Your task to perform on an android device: turn notification dots on Image 0: 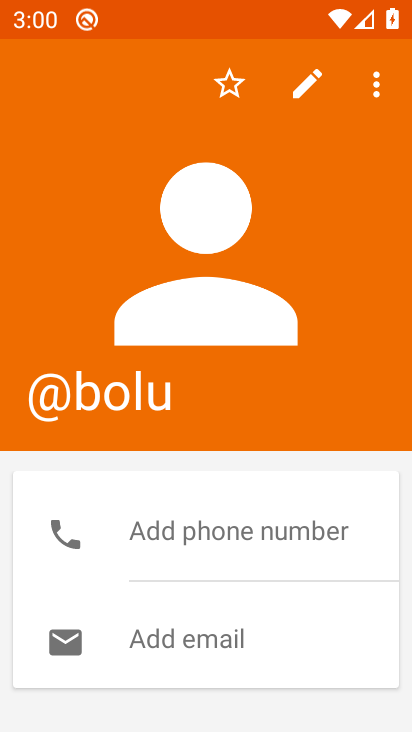
Step 0: press home button
Your task to perform on an android device: turn notification dots on Image 1: 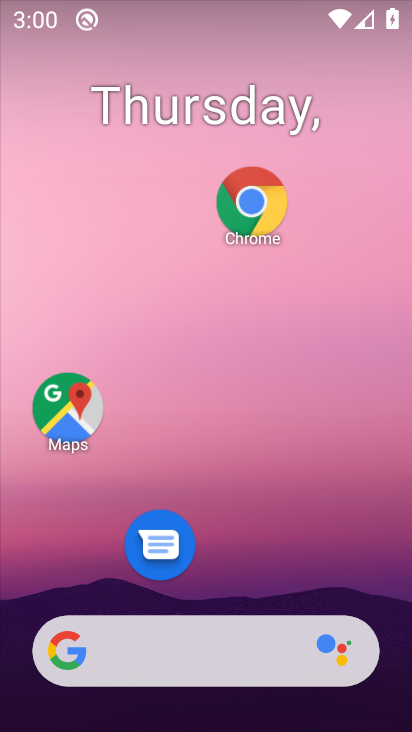
Step 1: click (176, 159)
Your task to perform on an android device: turn notification dots on Image 2: 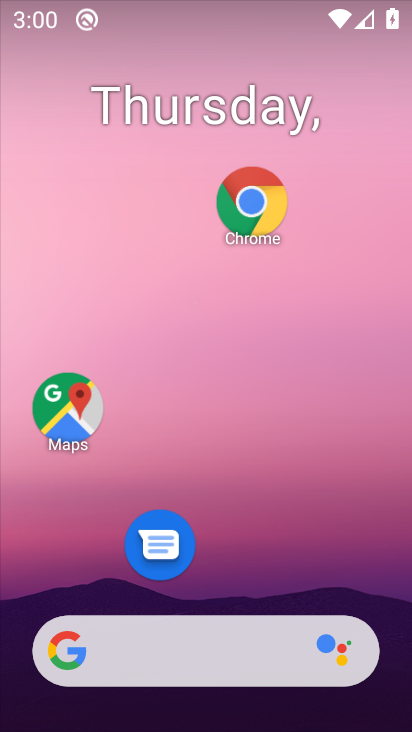
Step 2: drag from (200, 601) to (209, 140)
Your task to perform on an android device: turn notification dots on Image 3: 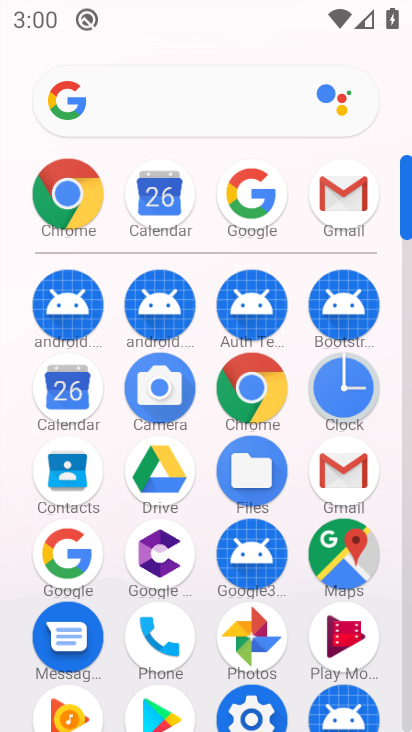
Step 3: drag from (131, 496) to (150, 140)
Your task to perform on an android device: turn notification dots on Image 4: 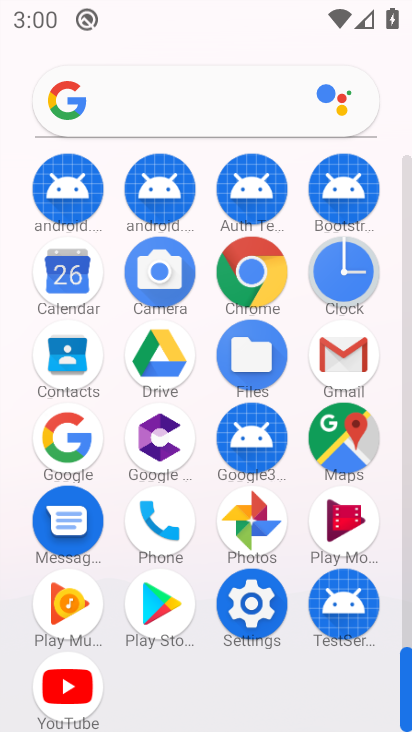
Step 4: click (248, 607)
Your task to perform on an android device: turn notification dots on Image 5: 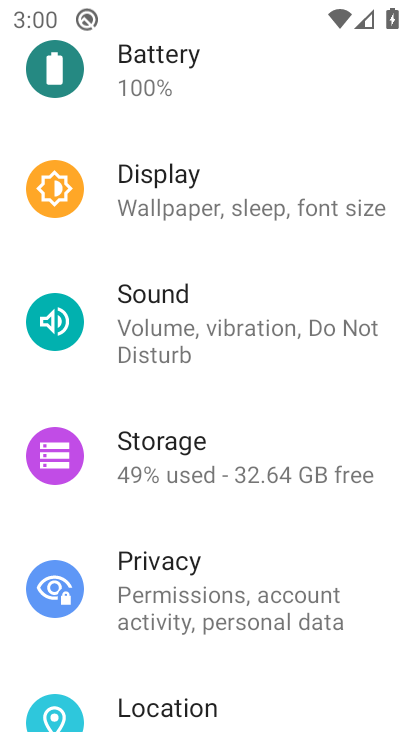
Step 5: drag from (226, 99) to (228, 578)
Your task to perform on an android device: turn notification dots on Image 6: 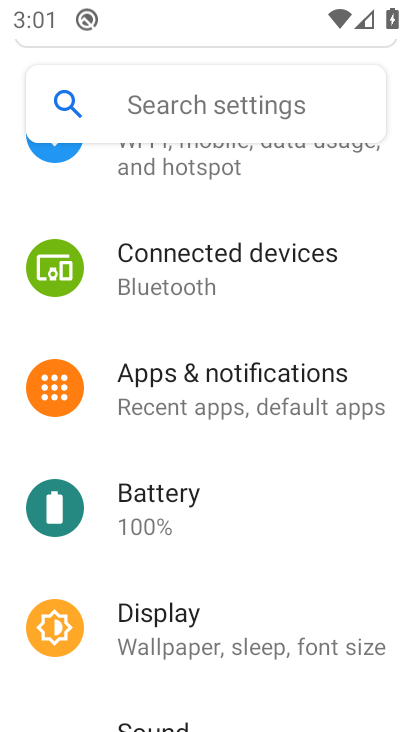
Step 6: click (211, 384)
Your task to perform on an android device: turn notification dots on Image 7: 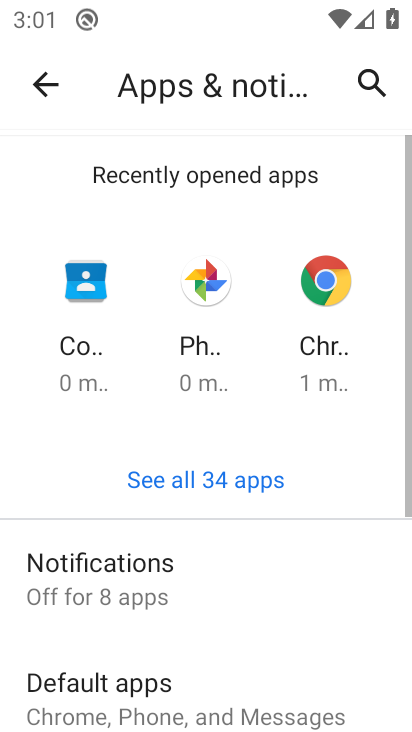
Step 7: click (128, 583)
Your task to perform on an android device: turn notification dots on Image 8: 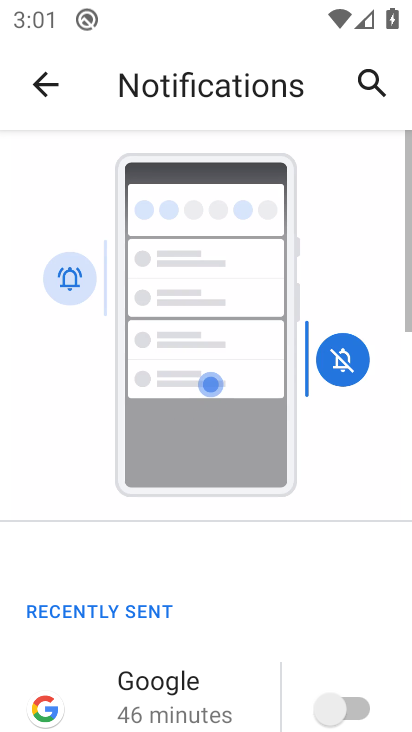
Step 8: drag from (275, 701) to (287, 128)
Your task to perform on an android device: turn notification dots on Image 9: 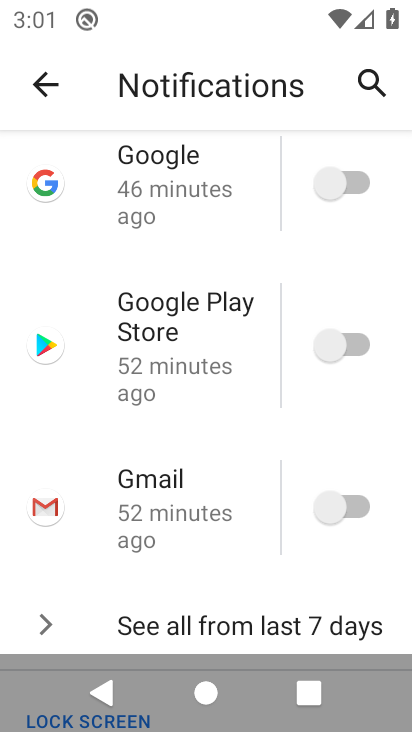
Step 9: drag from (243, 581) to (285, 195)
Your task to perform on an android device: turn notification dots on Image 10: 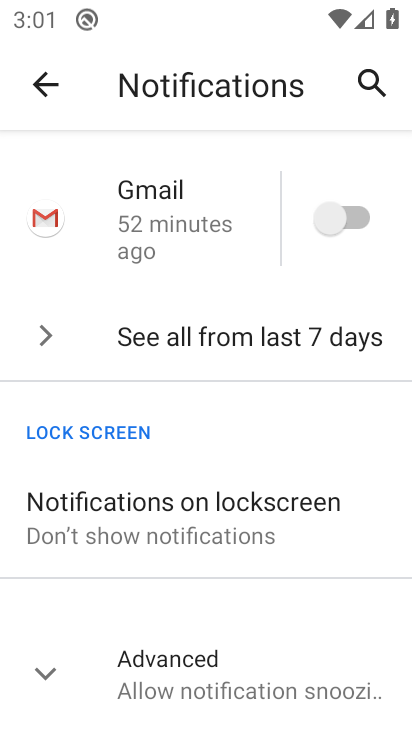
Step 10: click (182, 671)
Your task to perform on an android device: turn notification dots on Image 11: 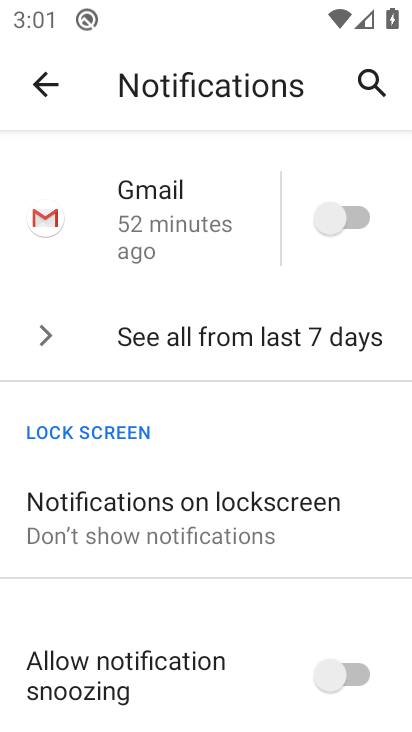
Step 11: drag from (234, 704) to (280, 223)
Your task to perform on an android device: turn notification dots on Image 12: 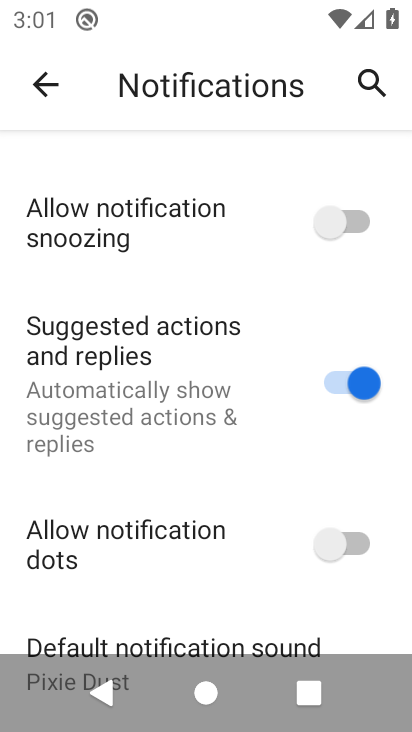
Step 12: drag from (217, 653) to (239, 319)
Your task to perform on an android device: turn notification dots on Image 13: 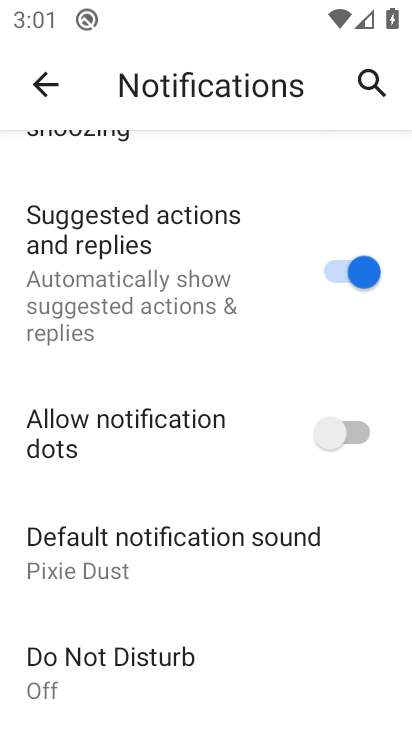
Step 13: drag from (187, 643) to (214, 353)
Your task to perform on an android device: turn notification dots on Image 14: 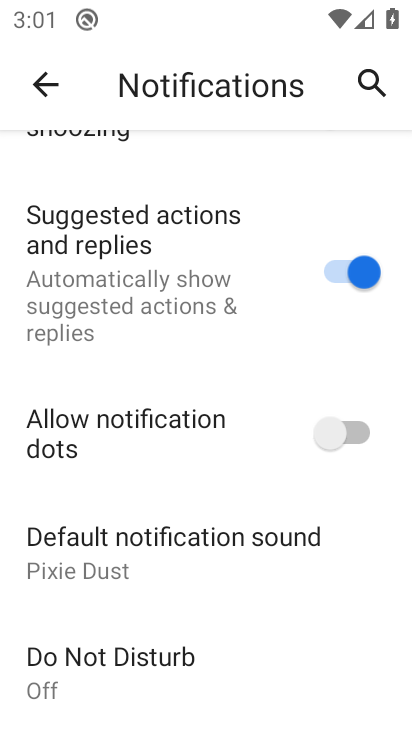
Step 14: click (352, 429)
Your task to perform on an android device: turn notification dots on Image 15: 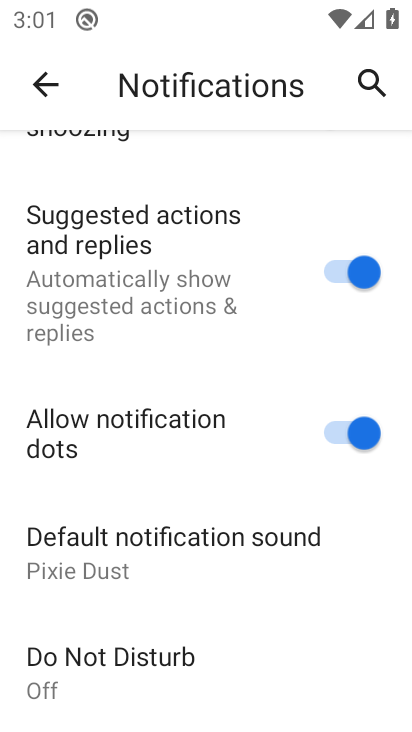
Step 15: task complete